Your task to perform on an android device: clear history in the chrome app Image 0: 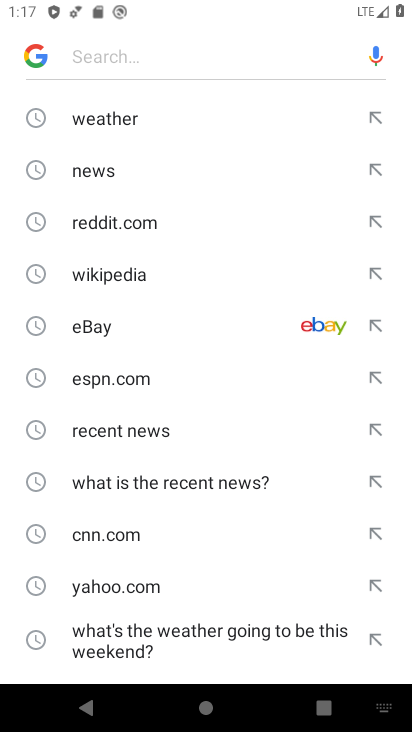
Step 0: press back button
Your task to perform on an android device: clear history in the chrome app Image 1: 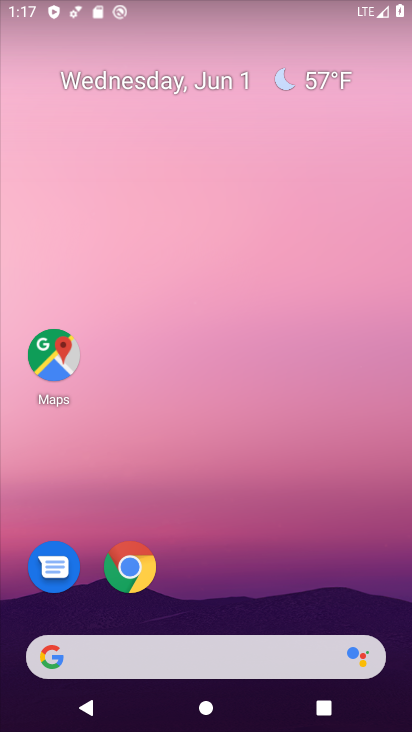
Step 1: click (144, 567)
Your task to perform on an android device: clear history in the chrome app Image 2: 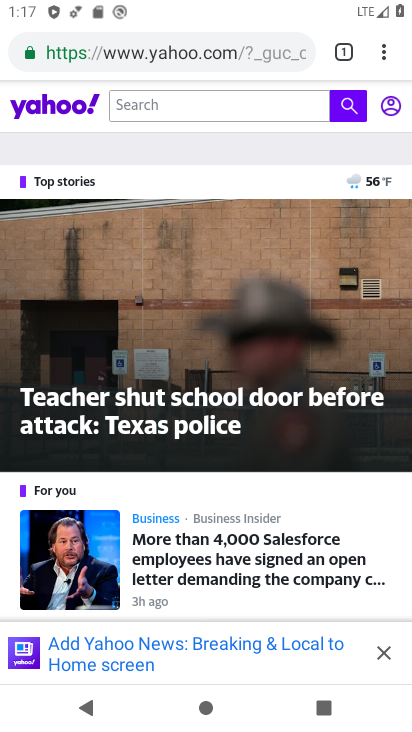
Step 2: click (385, 43)
Your task to perform on an android device: clear history in the chrome app Image 3: 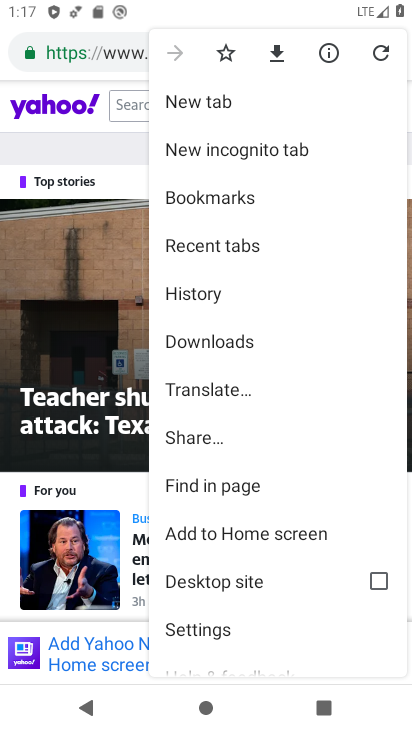
Step 3: click (220, 626)
Your task to perform on an android device: clear history in the chrome app Image 4: 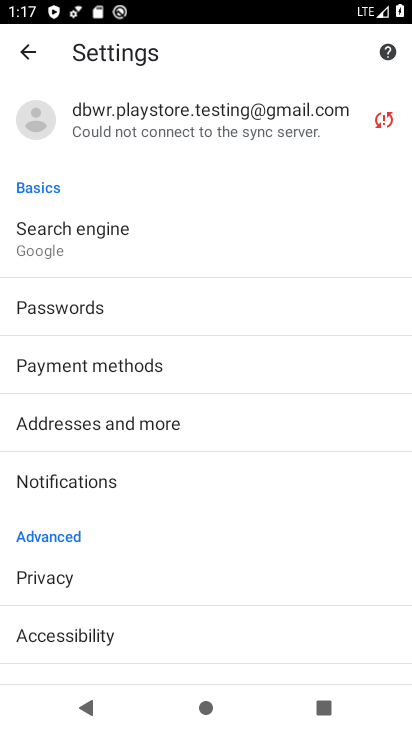
Step 4: drag from (138, 573) to (116, 423)
Your task to perform on an android device: clear history in the chrome app Image 5: 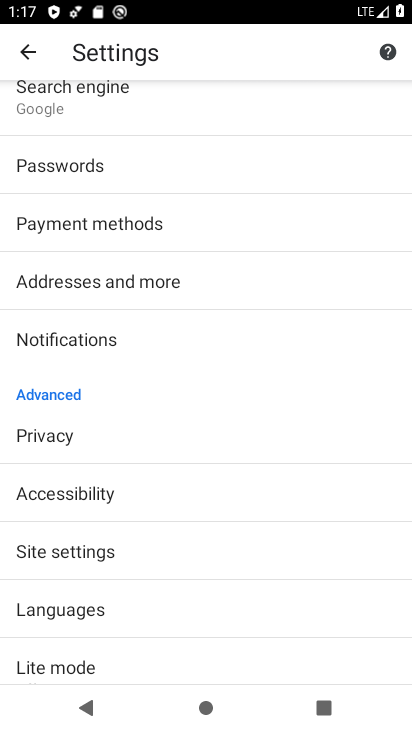
Step 5: click (110, 421)
Your task to perform on an android device: clear history in the chrome app Image 6: 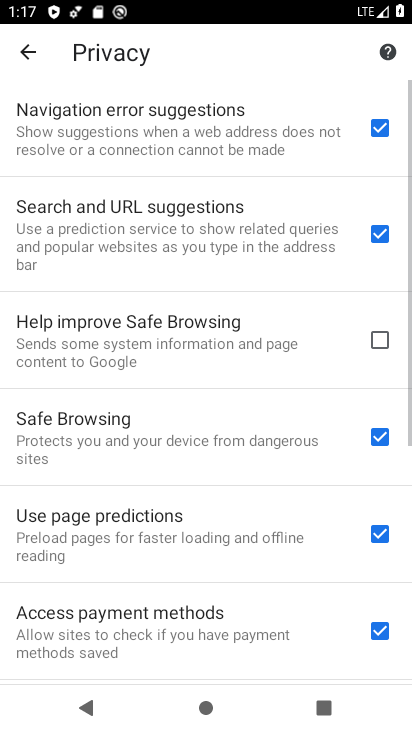
Step 6: drag from (187, 599) to (196, 50)
Your task to perform on an android device: clear history in the chrome app Image 7: 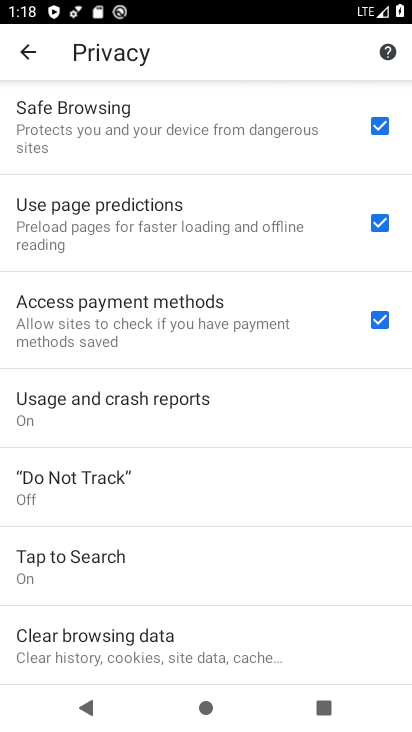
Step 7: click (140, 635)
Your task to perform on an android device: clear history in the chrome app Image 8: 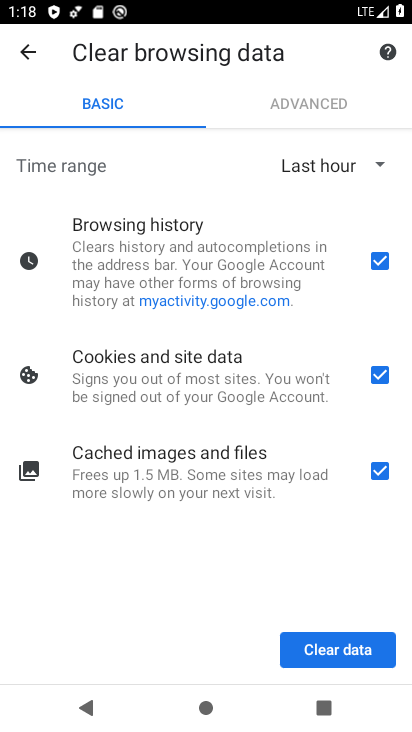
Step 8: click (310, 166)
Your task to perform on an android device: clear history in the chrome app Image 9: 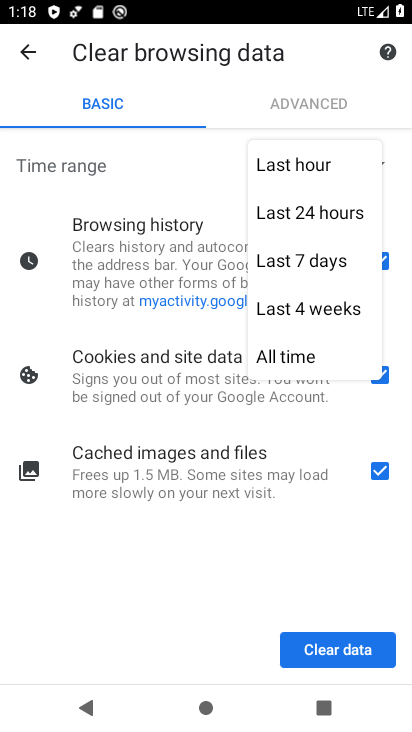
Step 9: click (299, 354)
Your task to perform on an android device: clear history in the chrome app Image 10: 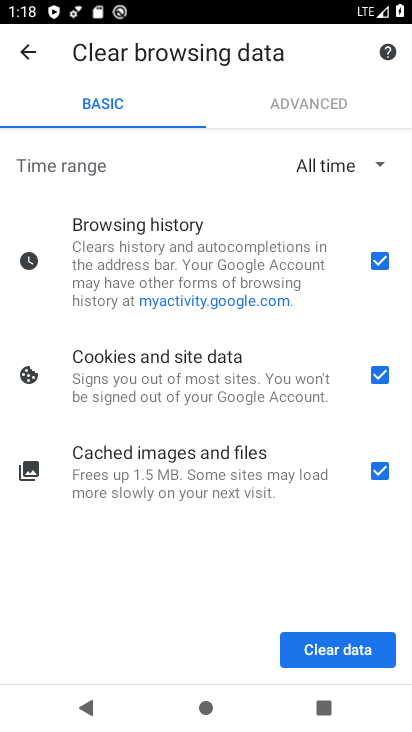
Step 10: click (337, 639)
Your task to perform on an android device: clear history in the chrome app Image 11: 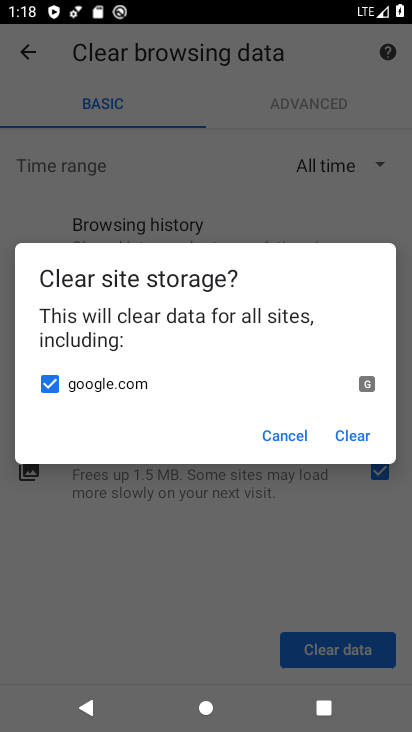
Step 11: click (365, 440)
Your task to perform on an android device: clear history in the chrome app Image 12: 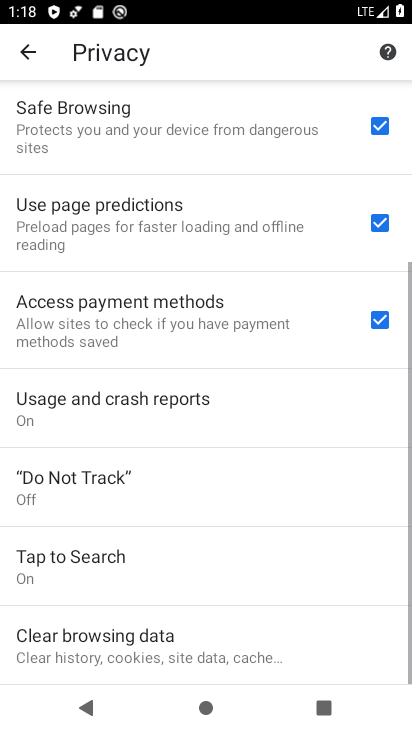
Step 12: task complete